Your task to perform on an android device: Open network settings Image 0: 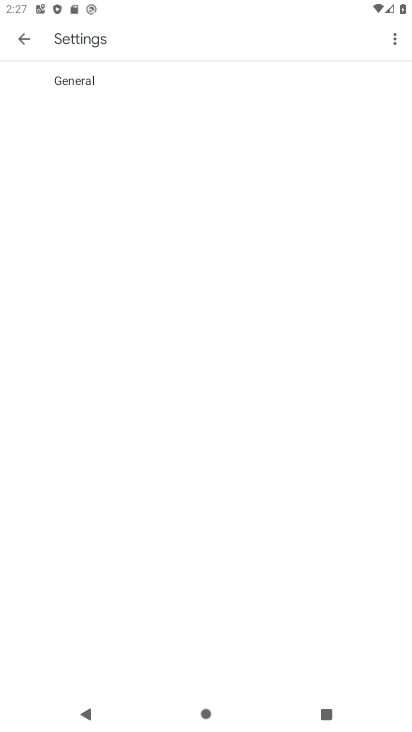
Step 0: press home button
Your task to perform on an android device: Open network settings Image 1: 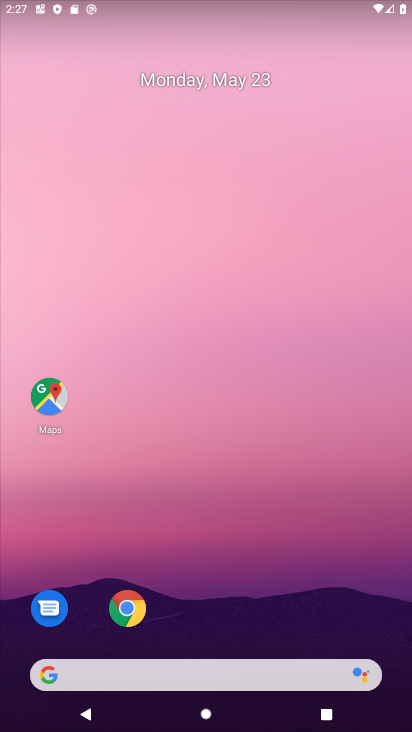
Step 1: drag from (205, 585) to (278, 6)
Your task to perform on an android device: Open network settings Image 2: 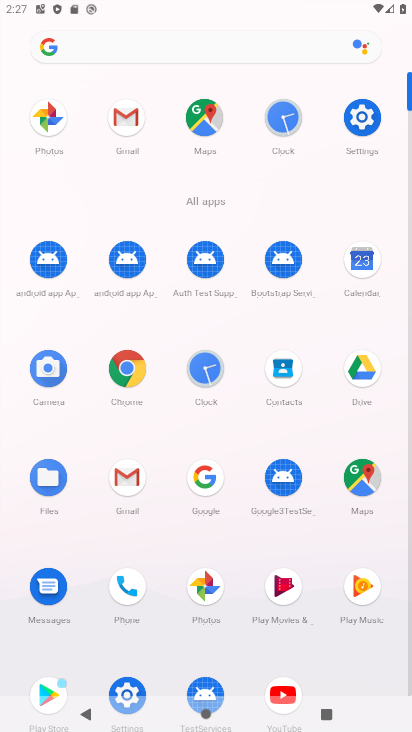
Step 2: click (359, 130)
Your task to perform on an android device: Open network settings Image 3: 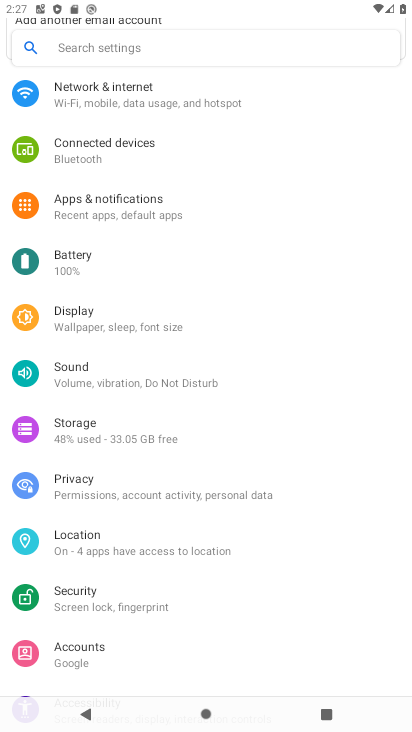
Step 3: click (169, 103)
Your task to perform on an android device: Open network settings Image 4: 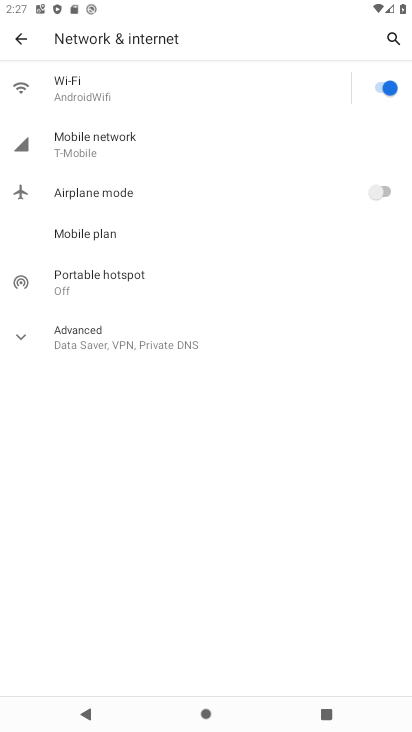
Step 4: task complete